Your task to perform on an android device: toggle wifi Image 0: 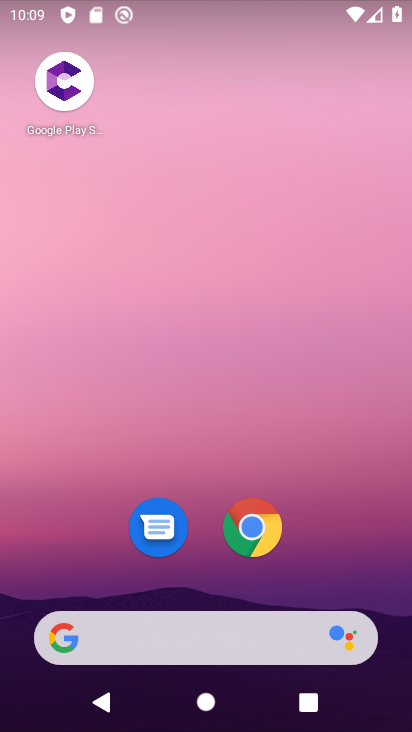
Step 0: drag from (334, 515) to (346, 2)
Your task to perform on an android device: toggle wifi Image 1: 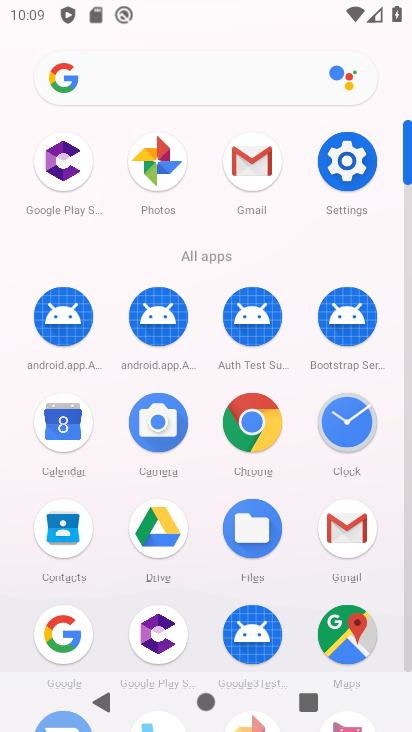
Step 1: click (353, 170)
Your task to perform on an android device: toggle wifi Image 2: 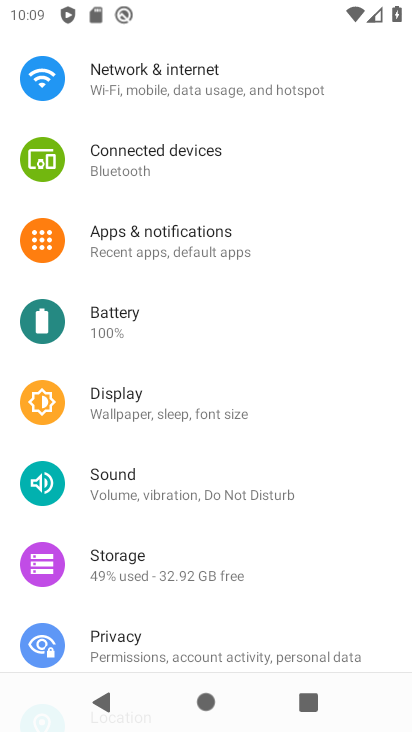
Step 2: click (216, 89)
Your task to perform on an android device: toggle wifi Image 3: 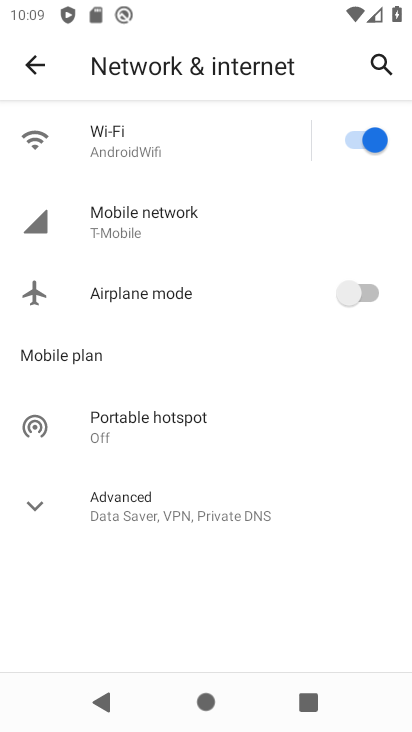
Step 3: click (382, 143)
Your task to perform on an android device: toggle wifi Image 4: 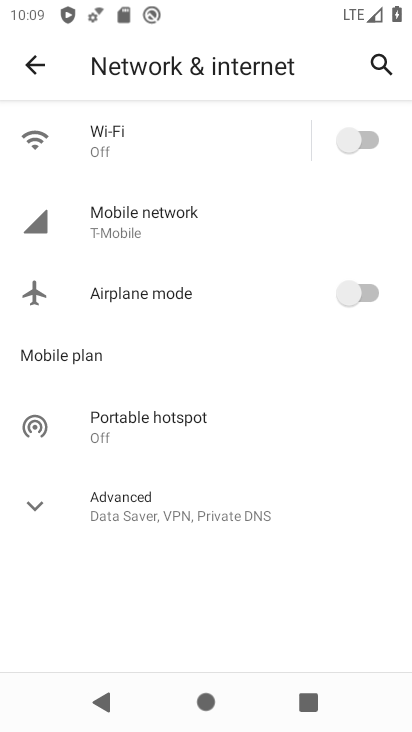
Step 4: task complete